Your task to perform on an android device: Show me the best rated 4K TV on Walmart. Image 0: 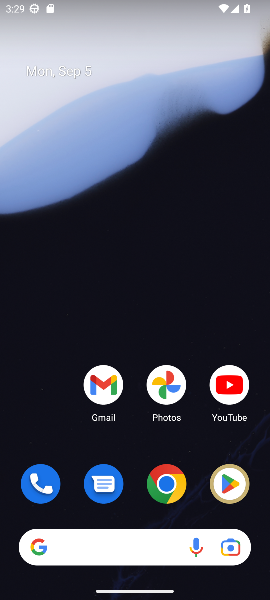
Step 0: click (167, 483)
Your task to perform on an android device: Show me the best rated 4K TV on Walmart. Image 1: 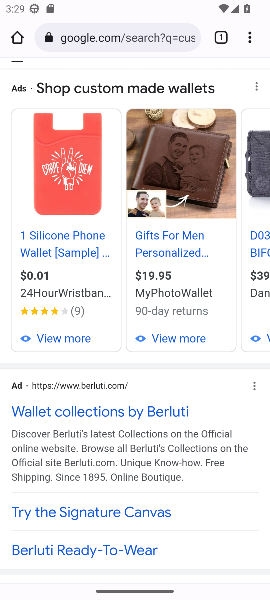
Step 1: click (170, 38)
Your task to perform on an android device: Show me the best rated 4K TV on Walmart. Image 2: 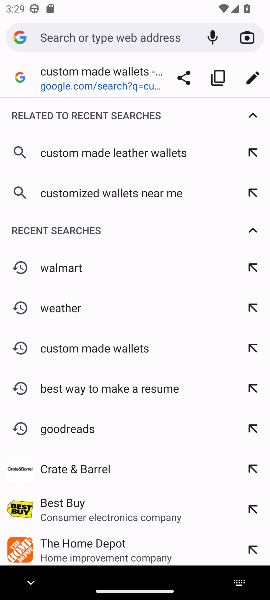
Step 2: type "Walmart"
Your task to perform on an android device: Show me the best rated 4K TV on Walmart. Image 3: 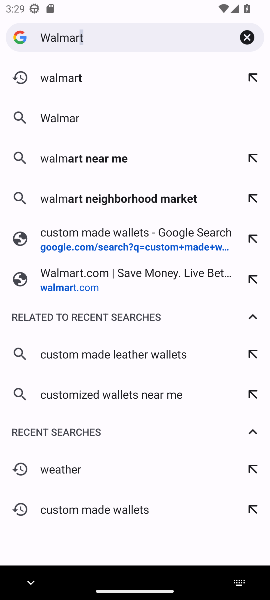
Step 3: press enter
Your task to perform on an android device: Show me the best rated 4K TV on Walmart. Image 4: 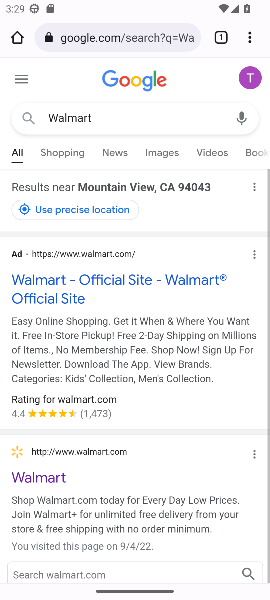
Step 4: drag from (120, 420) to (148, 362)
Your task to perform on an android device: Show me the best rated 4K TV on Walmart. Image 5: 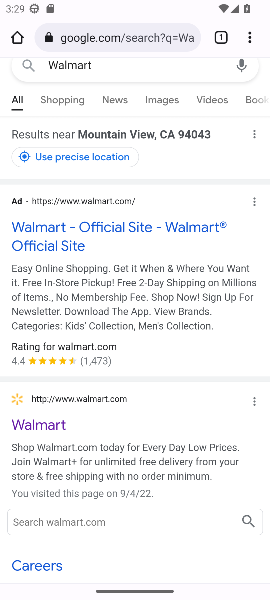
Step 5: click (45, 422)
Your task to perform on an android device: Show me the best rated 4K TV on Walmart. Image 6: 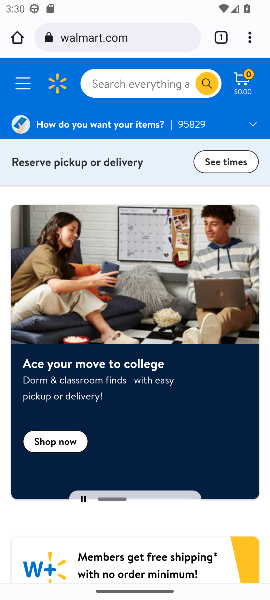
Step 6: click (154, 36)
Your task to perform on an android device: Show me the best rated 4K TV on Walmart. Image 7: 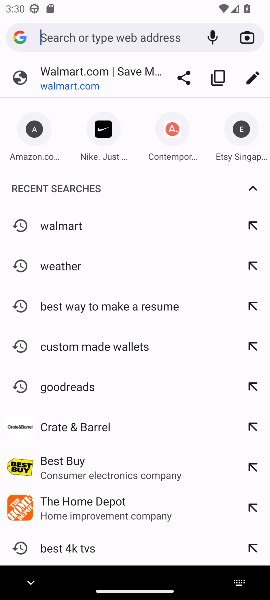
Step 7: click (44, 223)
Your task to perform on an android device: Show me the best rated 4K TV on Walmart. Image 8: 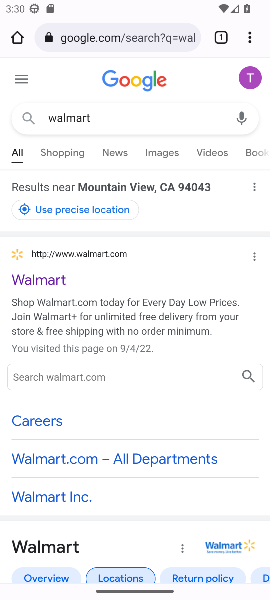
Step 8: click (48, 273)
Your task to perform on an android device: Show me the best rated 4K TV on Walmart. Image 9: 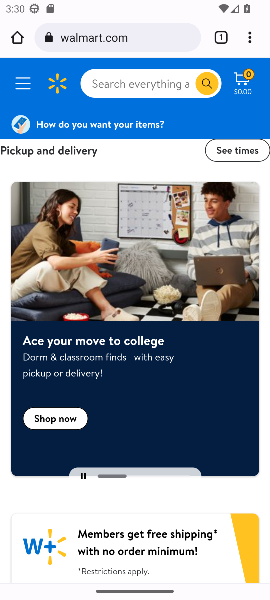
Step 9: click (130, 84)
Your task to perform on an android device: Show me the best rated 4K TV on Walmart. Image 10: 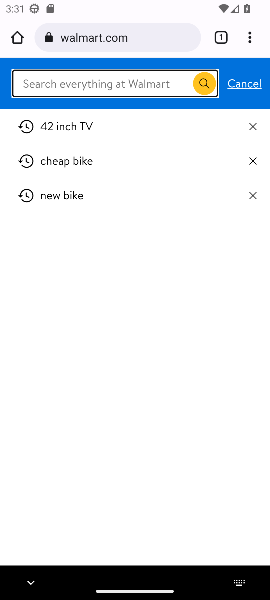
Step 10: type "rated 4K TV "
Your task to perform on an android device: Show me the best rated 4K TV on Walmart. Image 11: 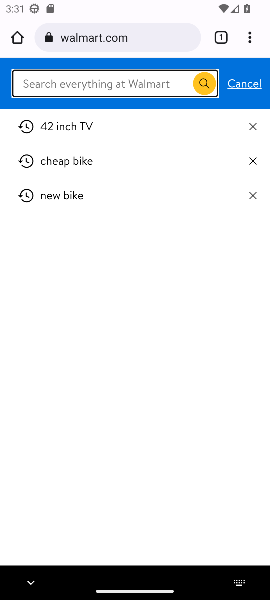
Step 11: press enter
Your task to perform on an android device: Show me the best rated 4K TV on Walmart. Image 12: 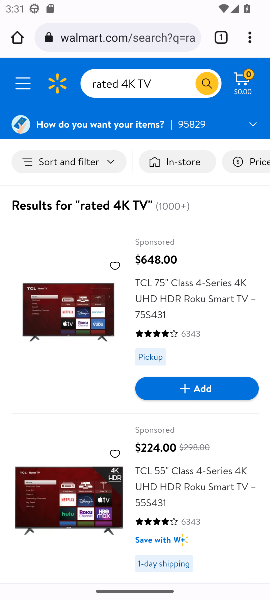
Step 12: task complete